Your task to perform on an android device: Turn on the flashlight Image 0: 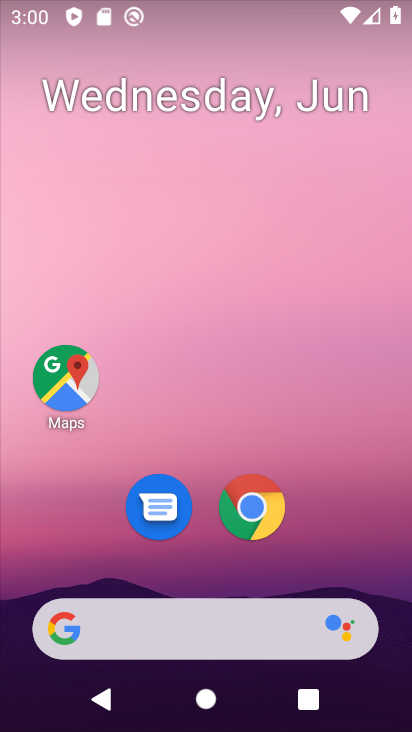
Step 0: drag from (212, 395) to (210, 73)
Your task to perform on an android device: Turn on the flashlight Image 1: 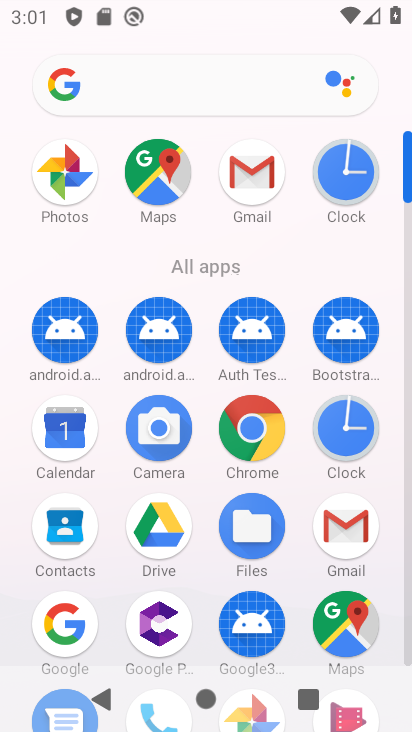
Step 1: drag from (198, 628) to (199, 268)
Your task to perform on an android device: Turn on the flashlight Image 2: 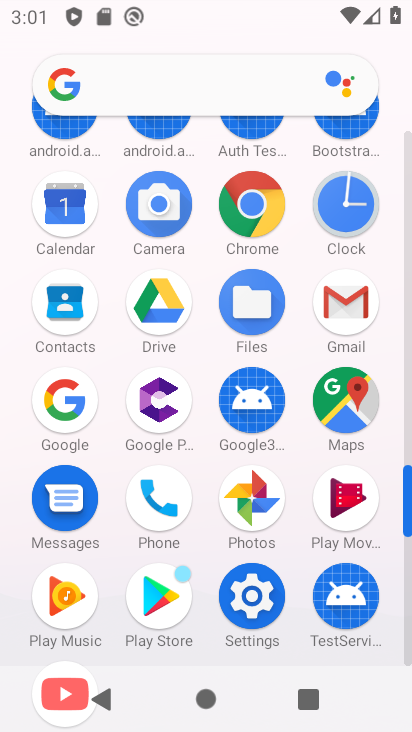
Step 2: click (264, 582)
Your task to perform on an android device: Turn on the flashlight Image 3: 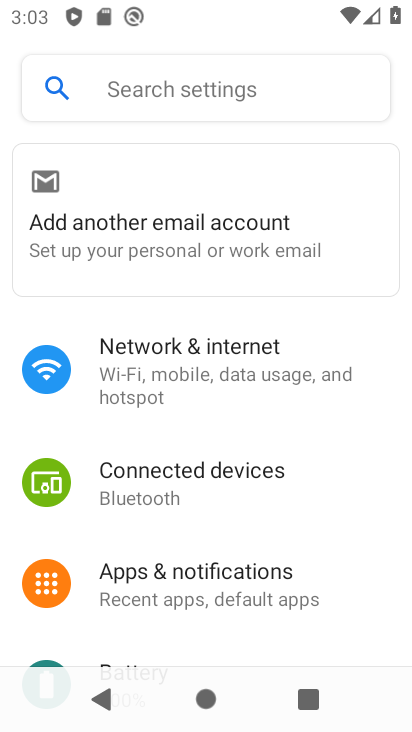
Step 3: task complete